Your task to perform on an android device: What's the weather going to be tomorrow? Image 0: 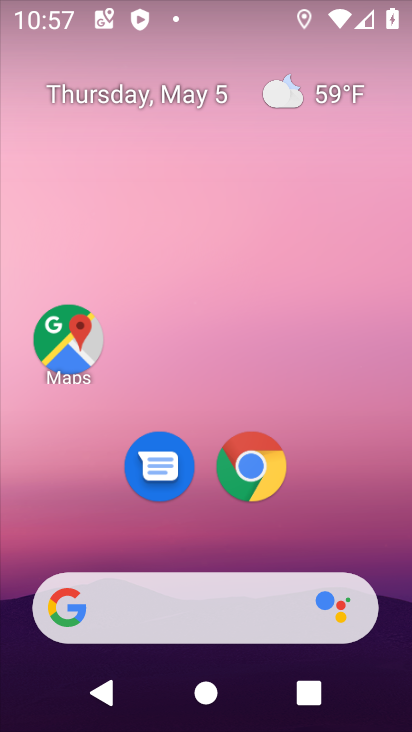
Step 0: click (295, 105)
Your task to perform on an android device: What's the weather going to be tomorrow? Image 1: 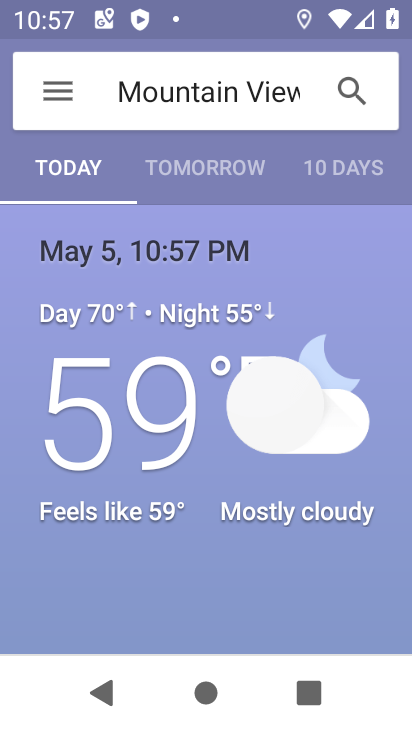
Step 1: click (163, 160)
Your task to perform on an android device: What's the weather going to be tomorrow? Image 2: 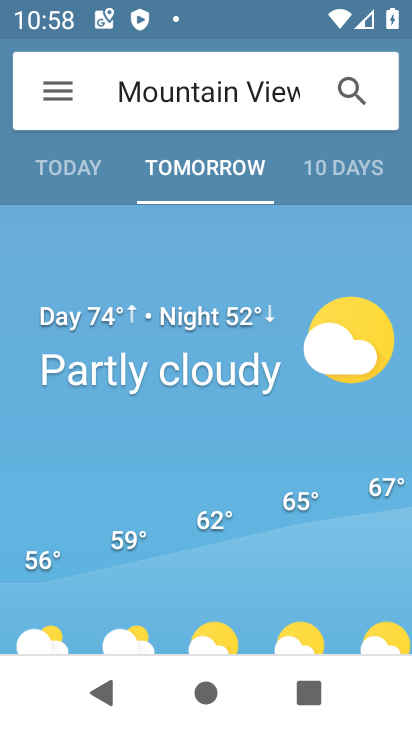
Step 2: task complete